Your task to perform on an android device: Open Chrome and go to settings Image 0: 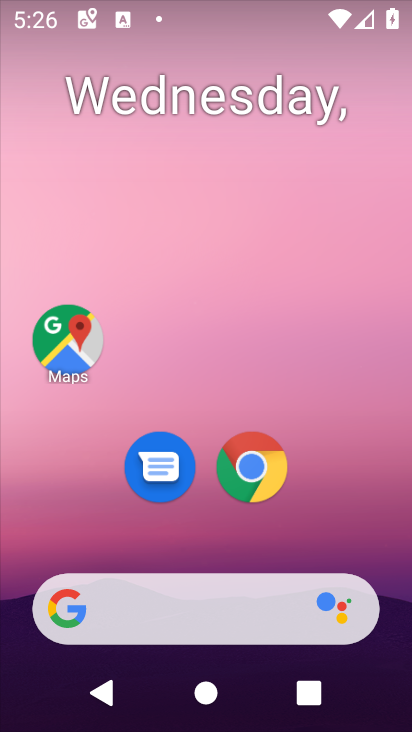
Step 0: click (256, 475)
Your task to perform on an android device: Open Chrome and go to settings Image 1: 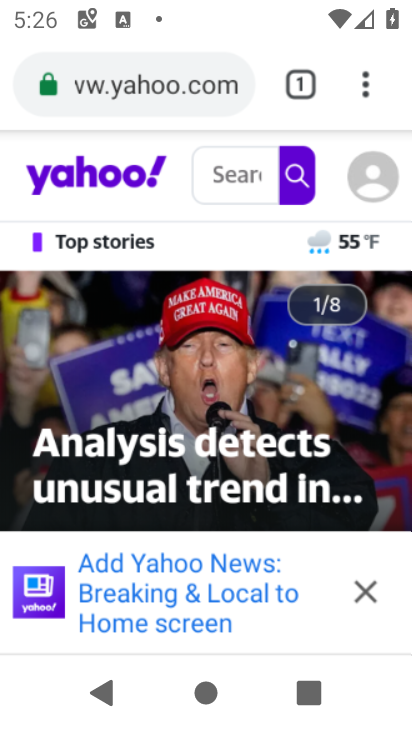
Step 1: click (354, 74)
Your task to perform on an android device: Open Chrome and go to settings Image 2: 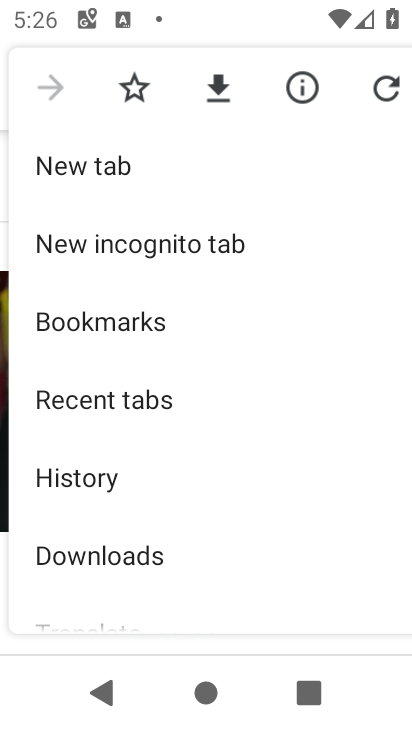
Step 2: drag from (237, 560) to (228, 84)
Your task to perform on an android device: Open Chrome and go to settings Image 3: 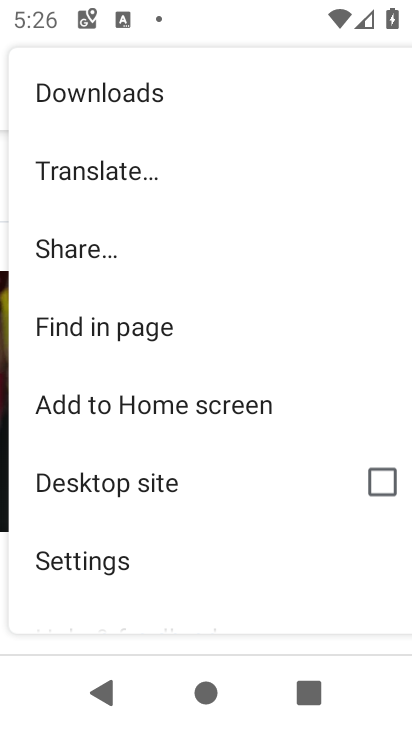
Step 3: click (167, 559)
Your task to perform on an android device: Open Chrome and go to settings Image 4: 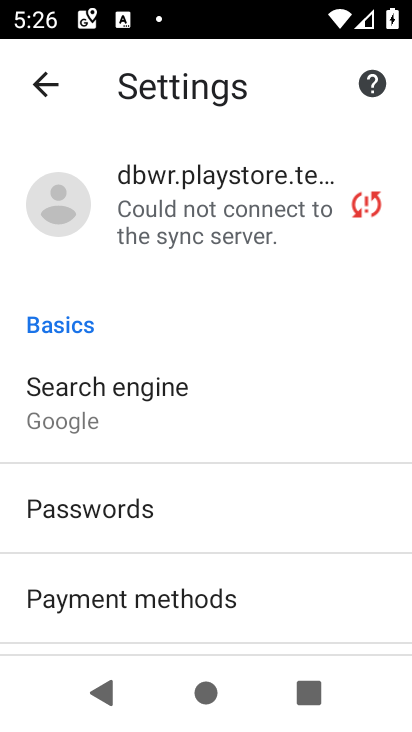
Step 4: task complete